Your task to perform on an android device: Open sound settings Image 0: 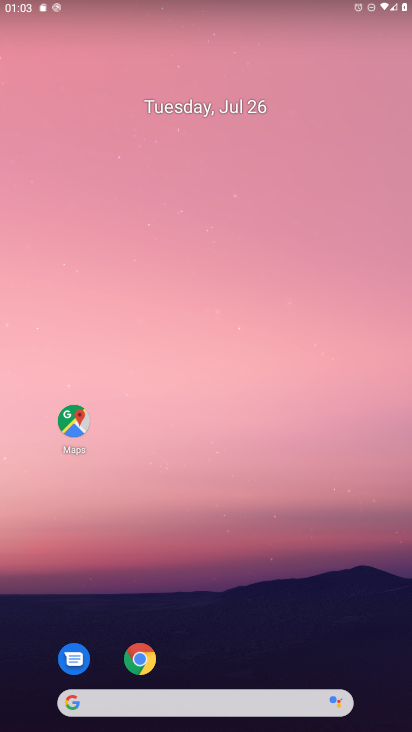
Step 0: drag from (201, 653) to (208, 172)
Your task to perform on an android device: Open sound settings Image 1: 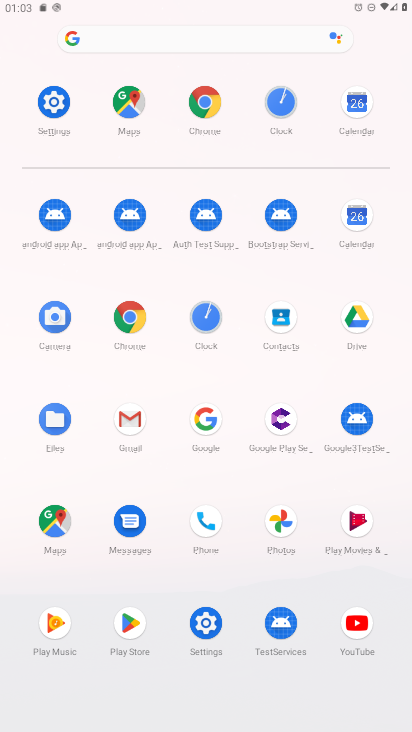
Step 1: click (200, 622)
Your task to perform on an android device: Open sound settings Image 2: 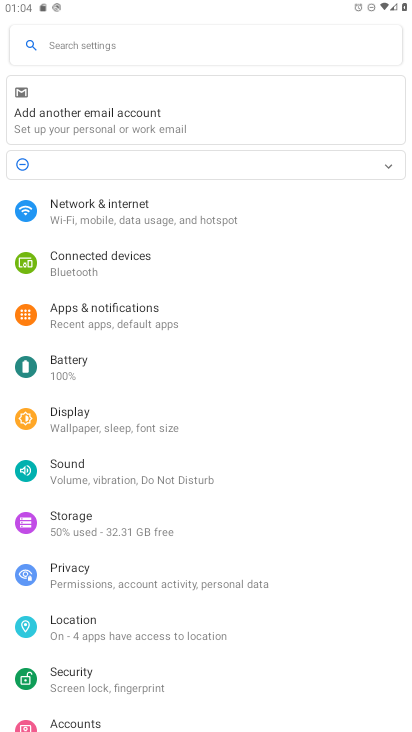
Step 2: click (76, 468)
Your task to perform on an android device: Open sound settings Image 3: 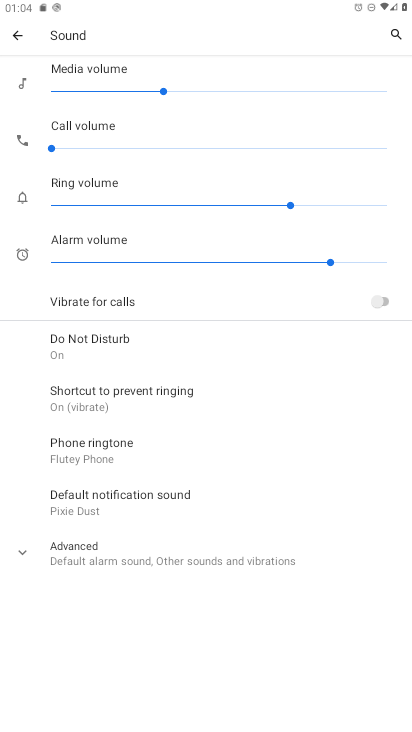
Step 3: task complete